Your task to perform on an android device: turn notification dots off Image 0: 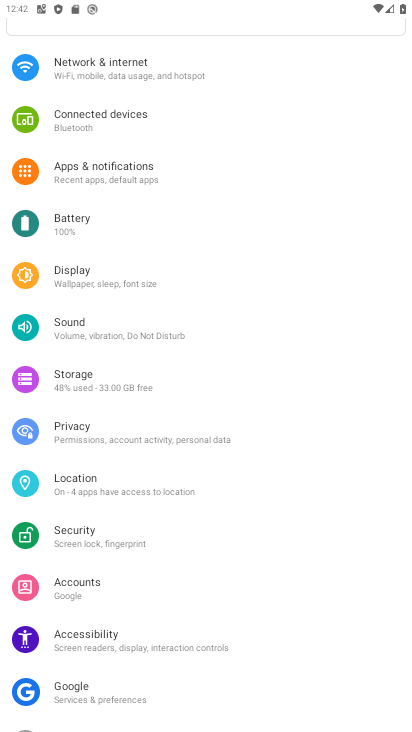
Step 0: click (164, 176)
Your task to perform on an android device: turn notification dots off Image 1: 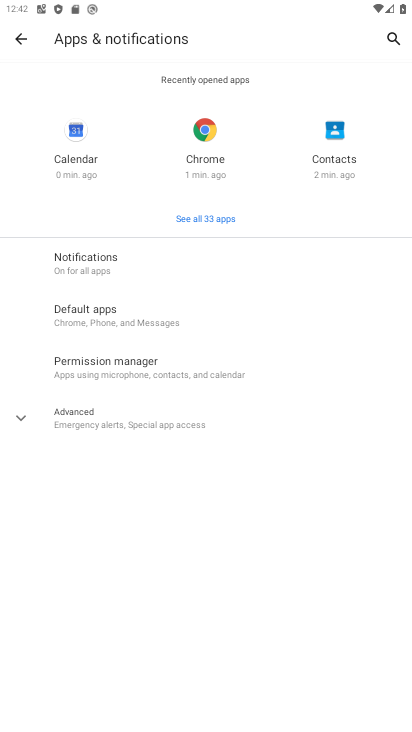
Step 1: click (111, 274)
Your task to perform on an android device: turn notification dots off Image 2: 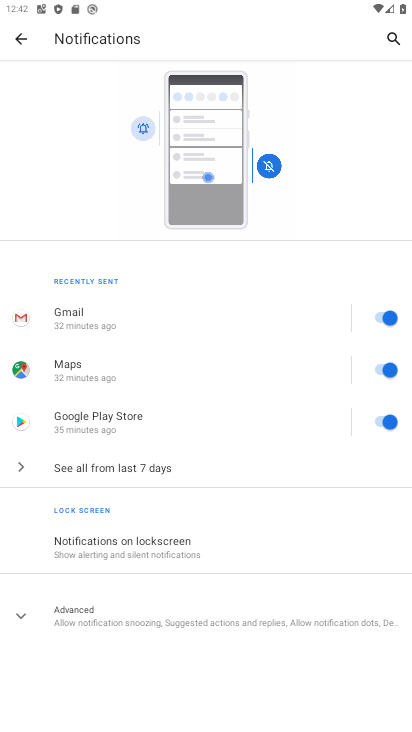
Step 2: click (135, 616)
Your task to perform on an android device: turn notification dots off Image 3: 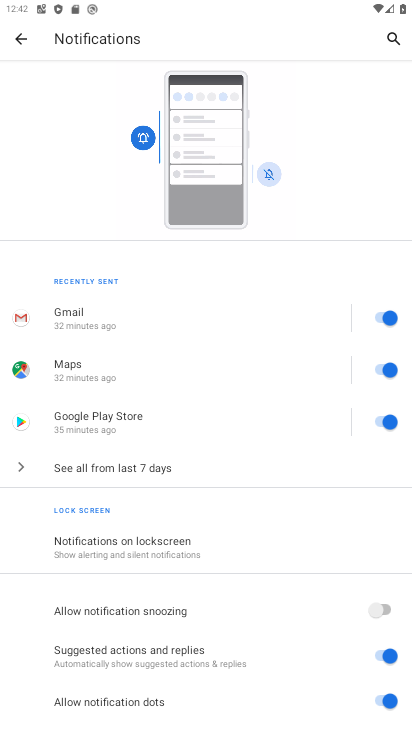
Step 3: click (386, 701)
Your task to perform on an android device: turn notification dots off Image 4: 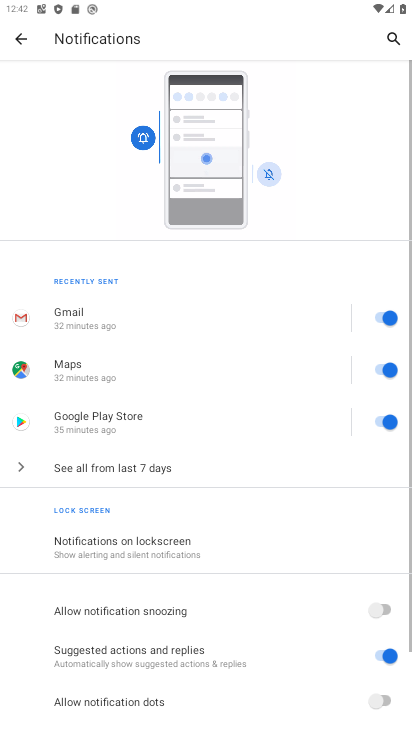
Step 4: task complete